Your task to perform on an android device: choose inbox layout in the gmail app Image 0: 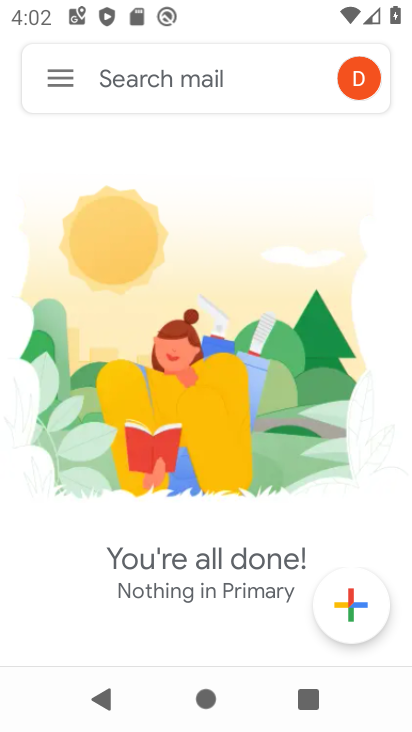
Step 0: press home button
Your task to perform on an android device: choose inbox layout in the gmail app Image 1: 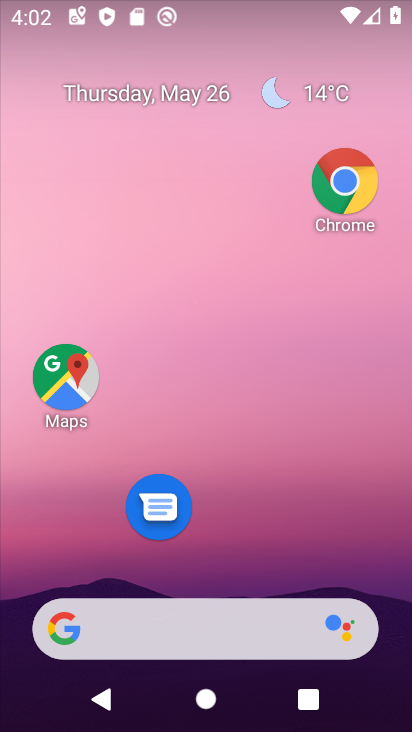
Step 1: drag from (290, 560) to (378, 110)
Your task to perform on an android device: choose inbox layout in the gmail app Image 2: 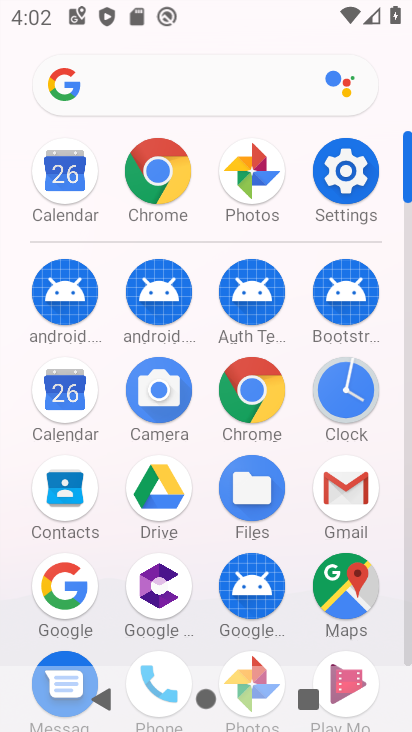
Step 2: click (337, 490)
Your task to perform on an android device: choose inbox layout in the gmail app Image 3: 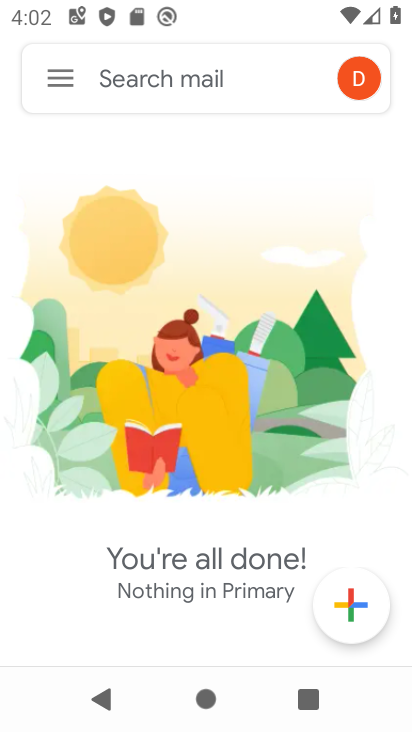
Step 3: click (56, 71)
Your task to perform on an android device: choose inbox layout in the gmail app Image 4: 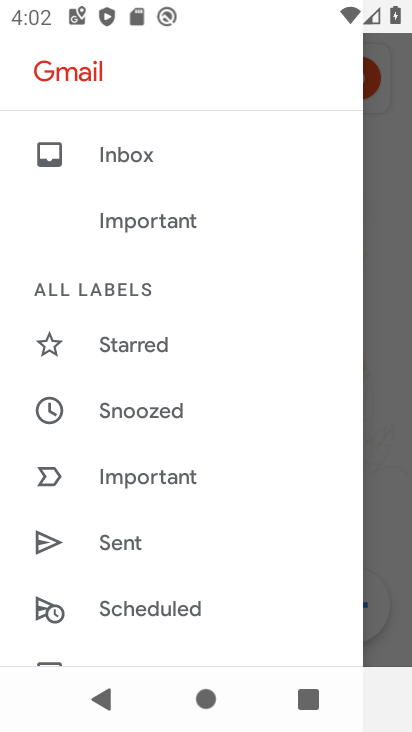
Step 4: drag from (231, 575) to (237, 175)
Your task to perform on an android device: choose inbox layout in the gmail app Image 5: 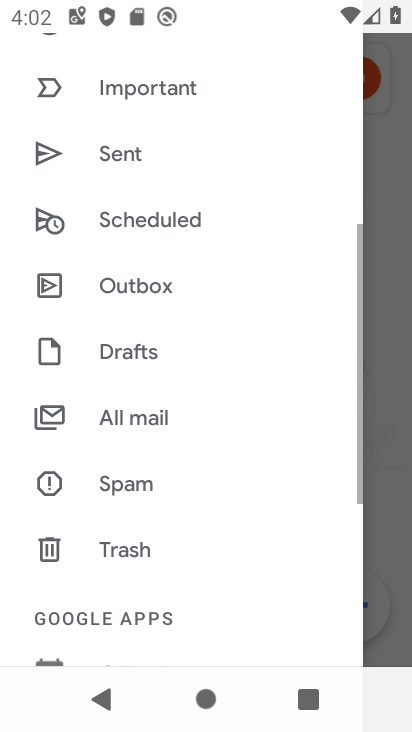
Step 5: drag from (255, 554) to (241, 197)
Your task to perform on an android device: choose inbox layout in the gmail app Image 6: 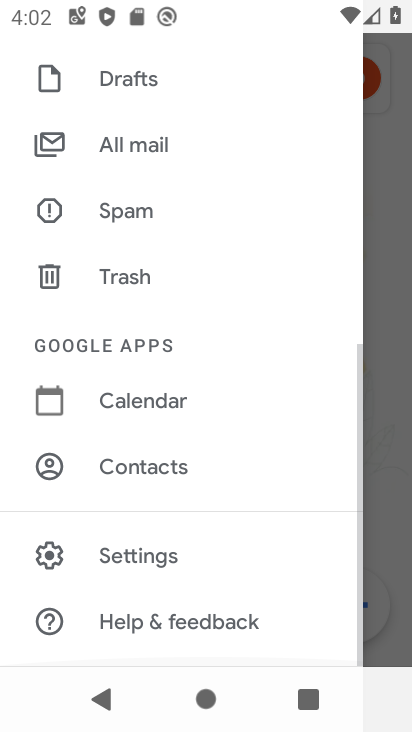
Step 6: drag from (196, 580) to (226, 293)
Your task to perform on an android device: choose inbox layout in the gmail app Image 7: 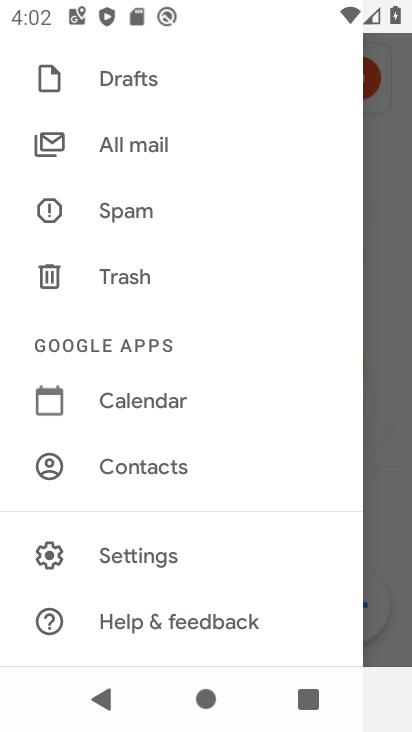
Step 7: click (149, 553)
Your task to perform on an android device: choose inbox layout in the gmail app Image 8: 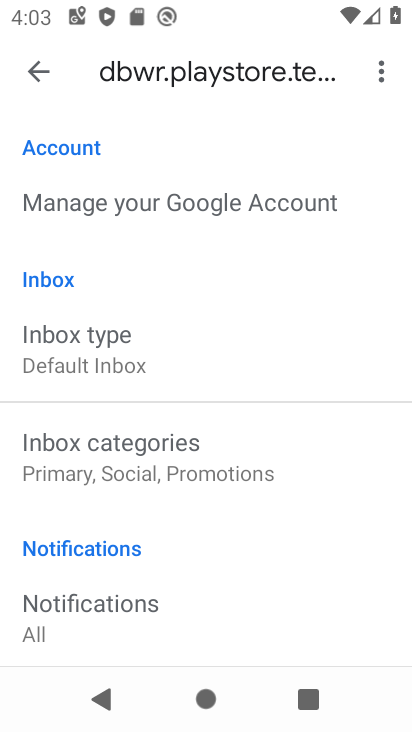
Step 8: click (93, 350)
Your task to perform on an android device: choose inbox layout in the gmail app Image 9: 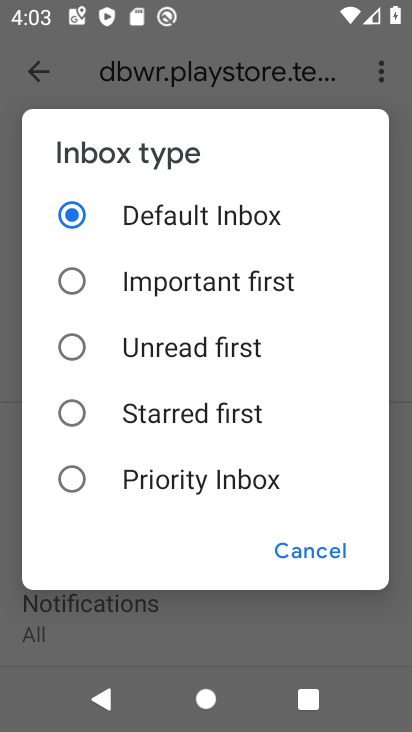
Step 9: click (139, 465)
Your task to perform on an android device: choose inbox layout in the gmail app Image 10: 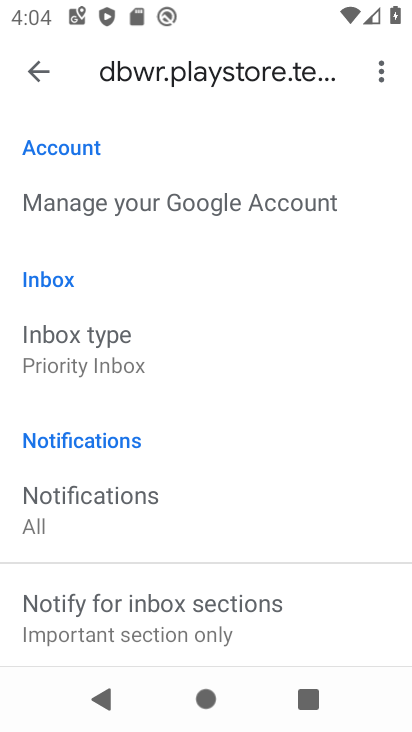
Step 10: task complete